Your task to perform on an android device: Go to Google Image 0: 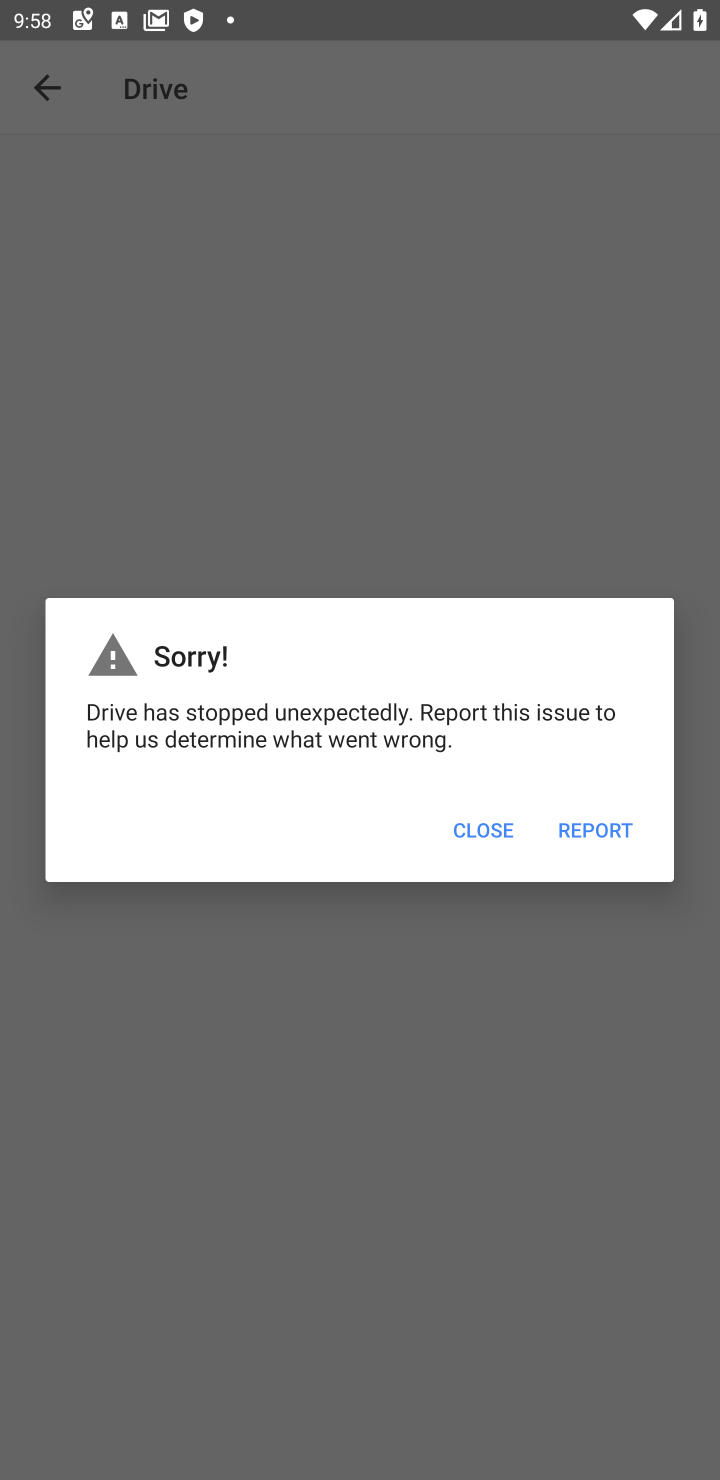
Step 0: press home button
Your task to perform on an android device: Go to Google Image 1: 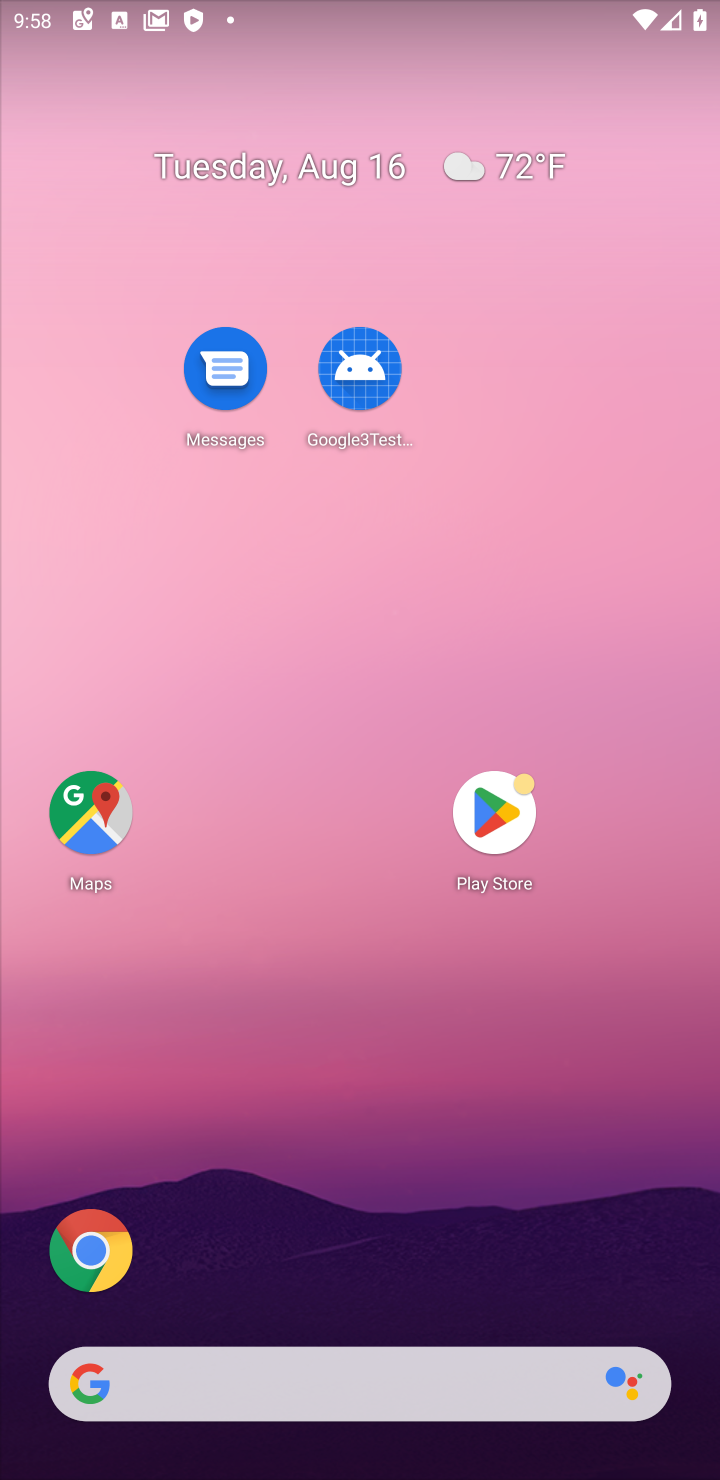
Step 1: click (450, 1405)
Your task to perform on an android device: Go to Google Image 2: 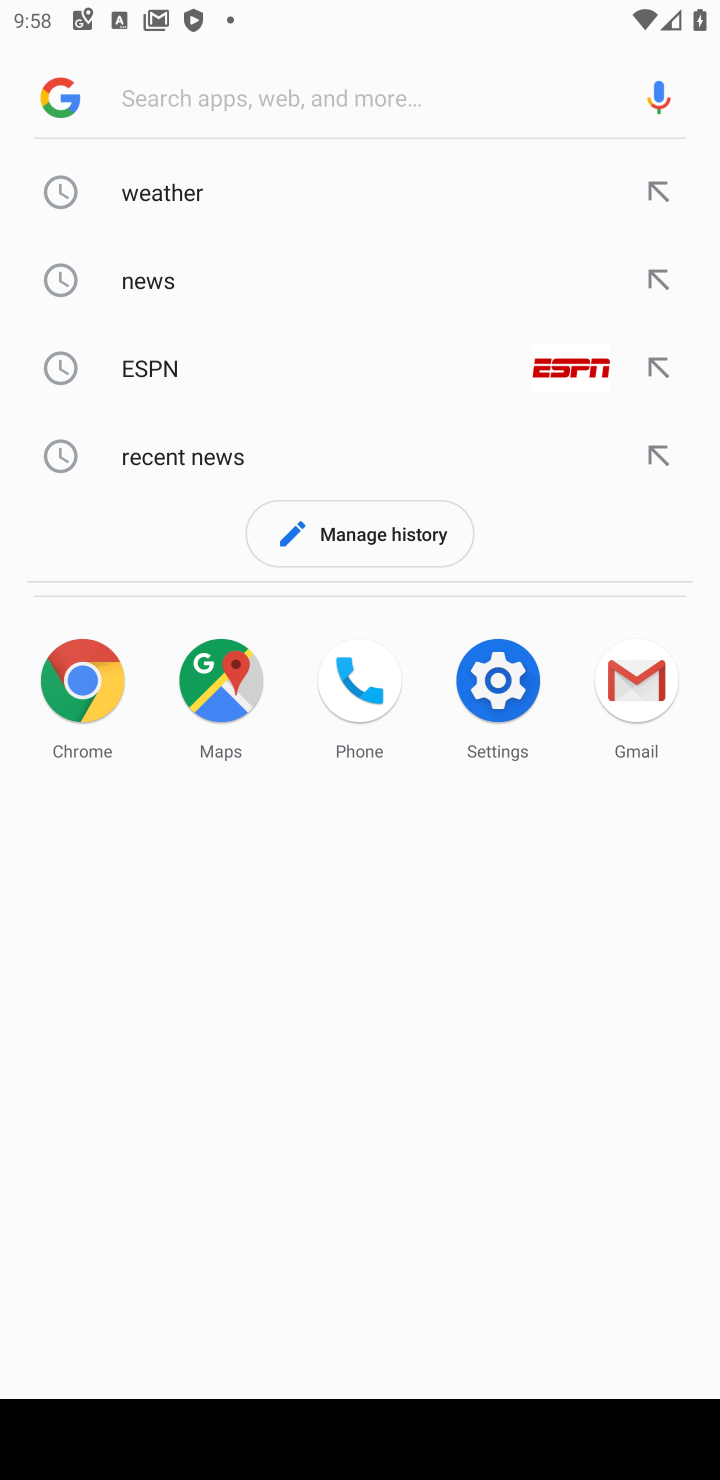
Step 2: task complete